Your task to perform on an android device: Go to eBay Image 0: 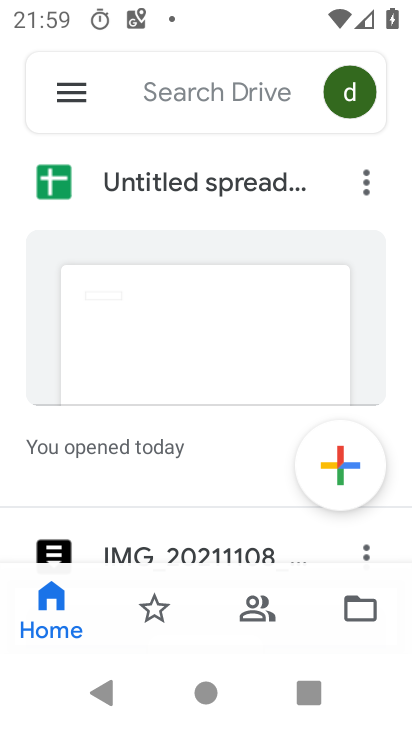
Step 0: press home button
Your task to perform on an android device: Go to eBay Image 1: 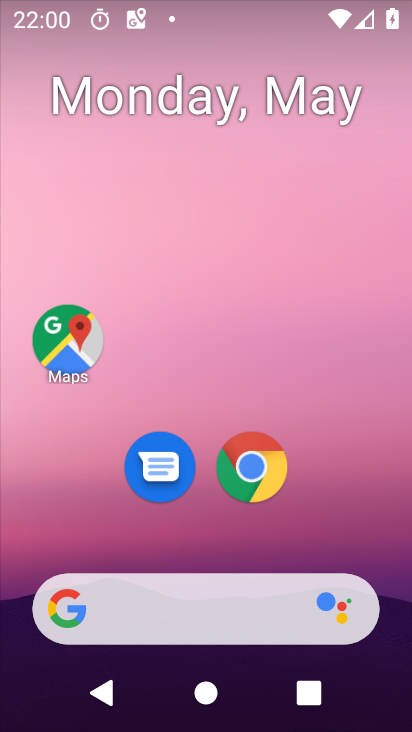
Step 1: click (278, 470)
Your task to perform on an android device: Go to eBay Image 2: 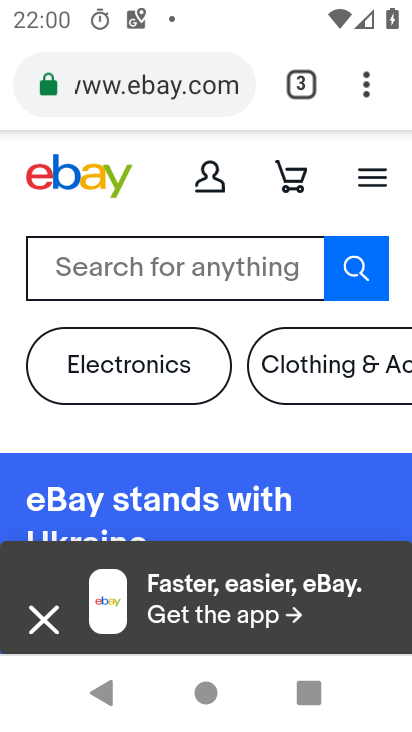
Step 2: click (155, 90)
Your task to perform on an android device: Go to eBay Image 3: 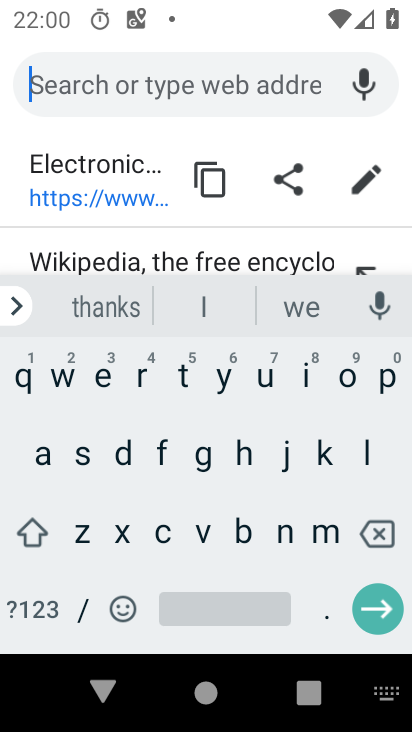
Step 3: click (94, 379)
Your task to perform on an android device: Go to eBay Image 4: 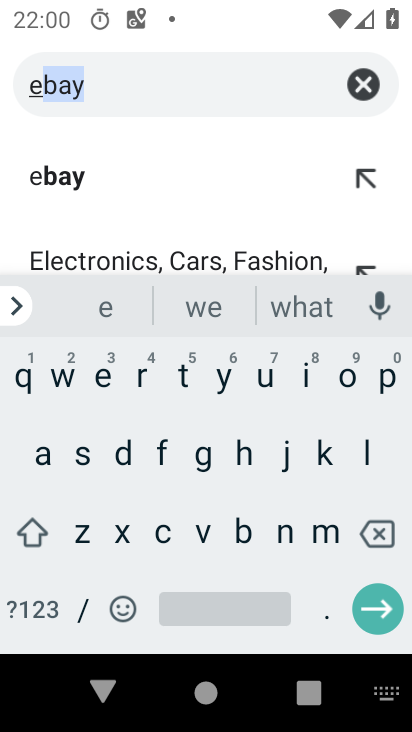
Step 4: click (126, 77)
Your task to perform on an android device: Go to eBay Image 5: 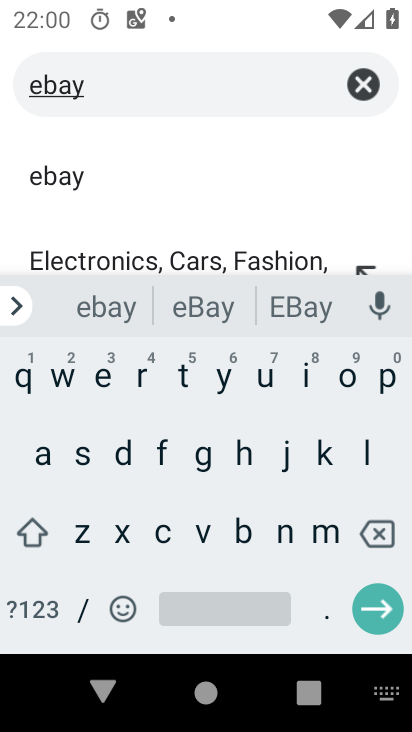
Step 5: click (64, 175)
Your task to perform on an android device: Go to eBay Image 6: 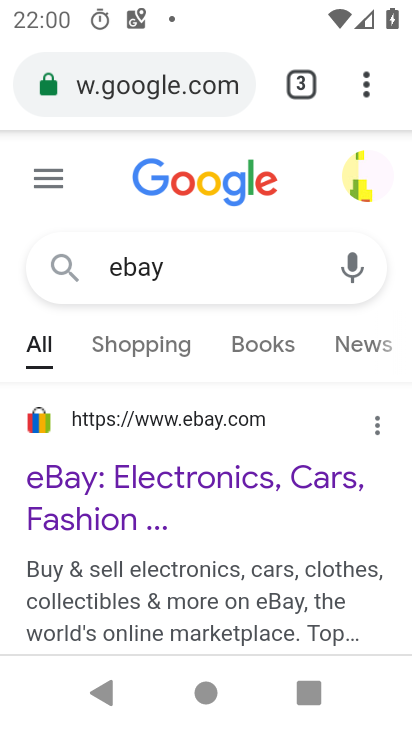
Step 6: click (76, 493)
Your task to perform on an android device: Go to eBay Image 7: 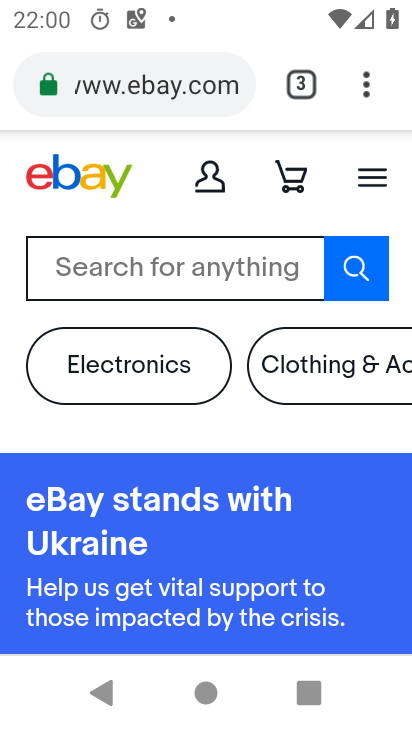
Step 7: task complete